Your task to perform on an android device: read, delete, or share a saved page in the chrome app Image 0: 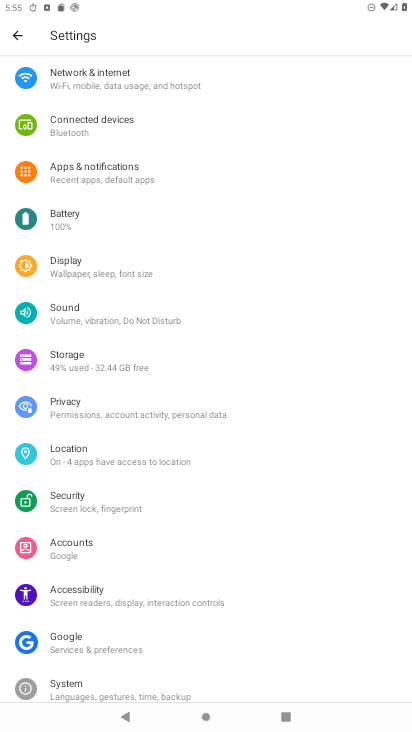
Step 0: press home button
Your task to perform on an android device: read, delete, or share a saved page in the chrome app Image 1: 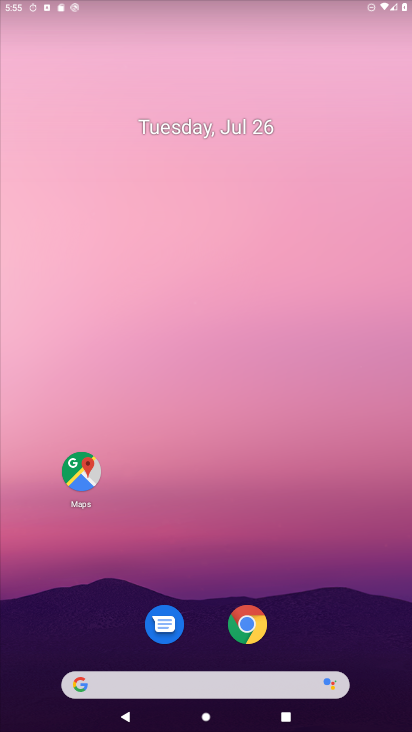
Step 1: drag from (223, 665) to (343, 12)
Your task to perform on an android device: read, delete, or share a saved page in the chrome app Image 2: 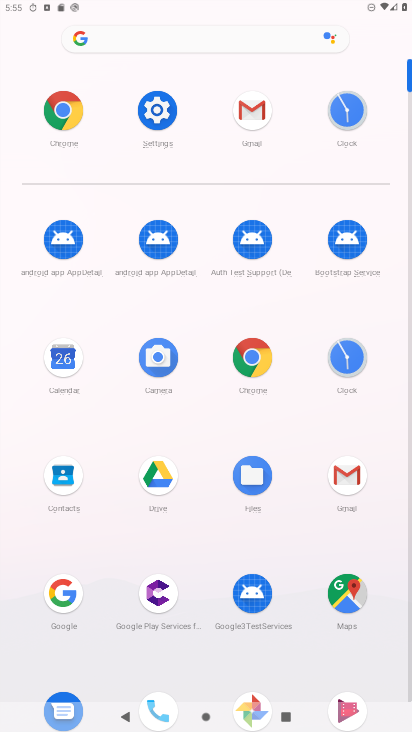
Step 2: click (254, 360)
Your task to perform on an android device: read, delete, or share a saved page in the chrome app Image 3: 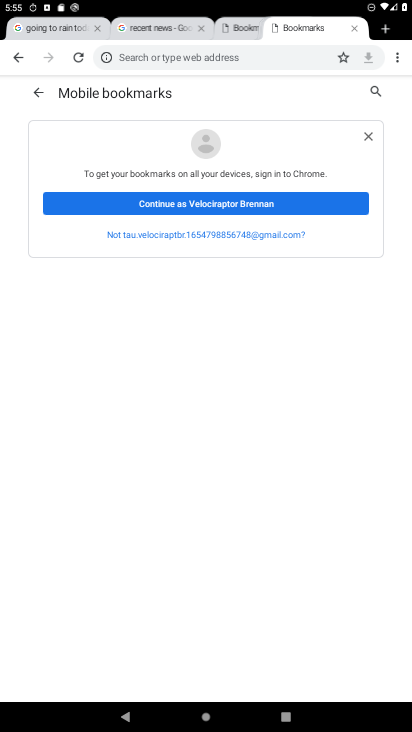
Step 3: click (395, 57)
Your task to perform on an android device: read, delete, or share a saved page in the chrome app Image 4: 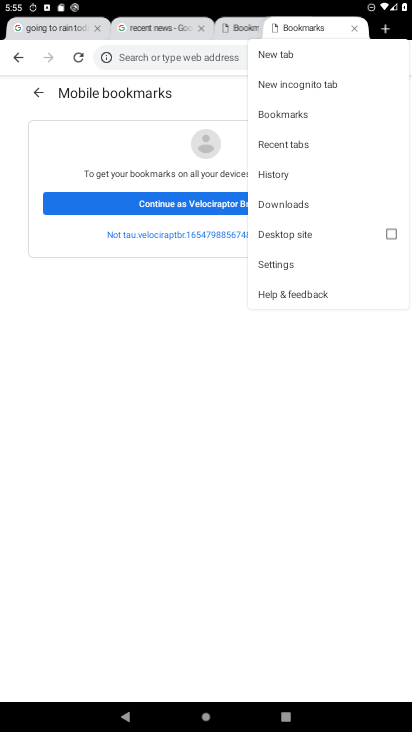
Step 4: click (278, 192)
Your task to perform on an android device: read, delete, or share a saved page in the chrome app Image 5: 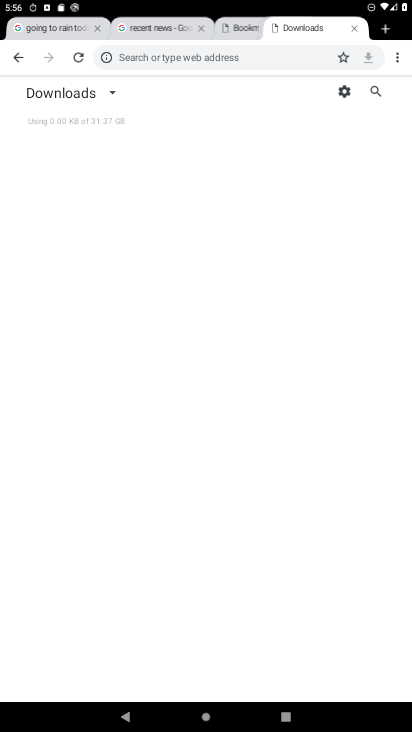
Step 5: task complete